Your task to perform on an android device: change the clock display to digital Image 0: 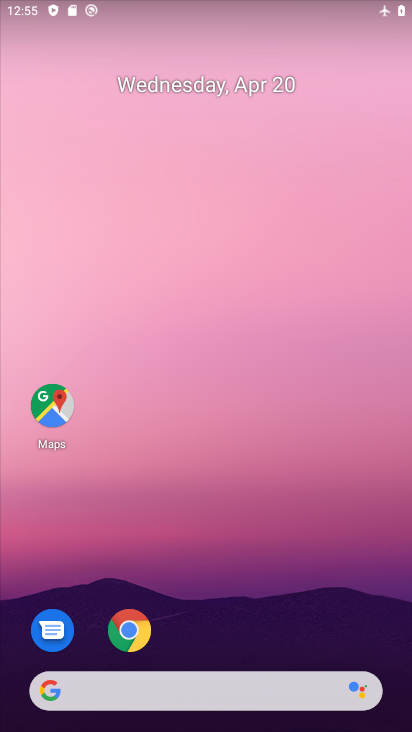
Step 0: drag from (202, 550) to (204, 294)
Your task to perform on an android device: change the clock display to digital Image 1: 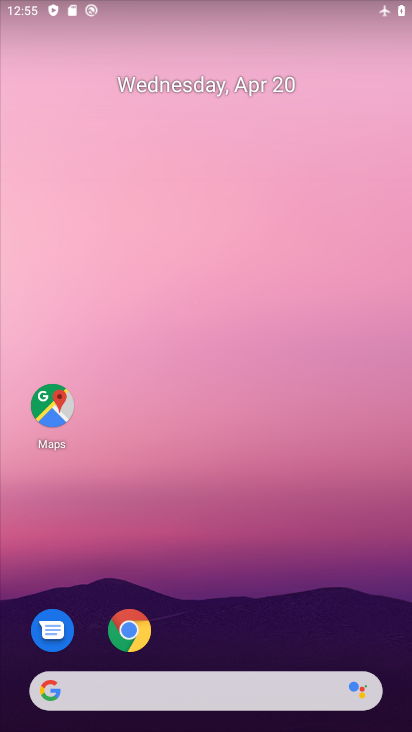
Step 1: drag from (258, 643) to (163, 121)
Your task to perform on an android device: change the clock display to digital Image 2: 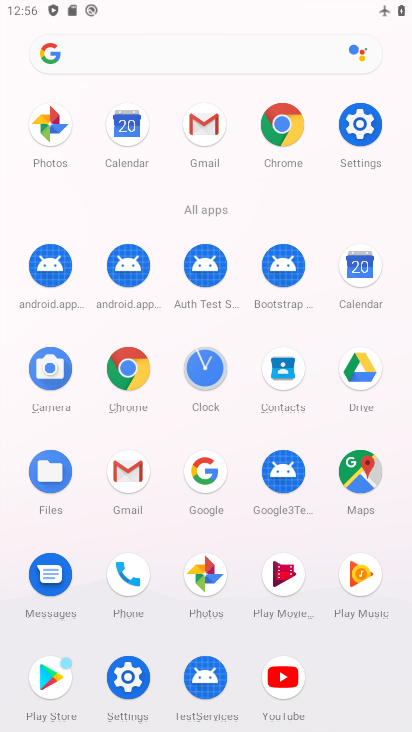
Step 2: click (216, 368)
Your task to perform on an android device: change the clock display to digital Image 3: 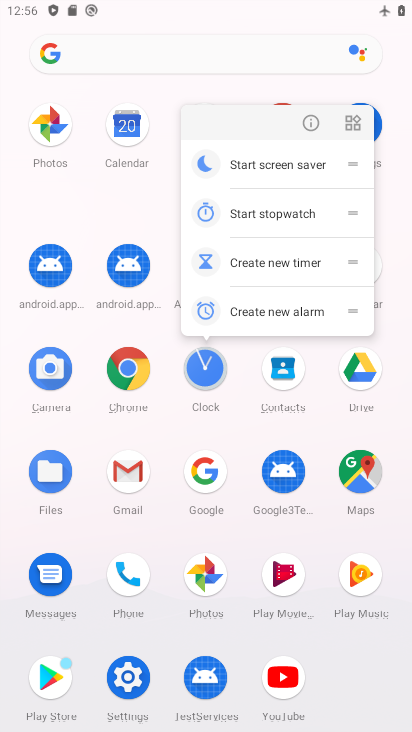
Step 3: click (219, 369)
Your task to perform on an android device: change the clock display to digital Image 4: 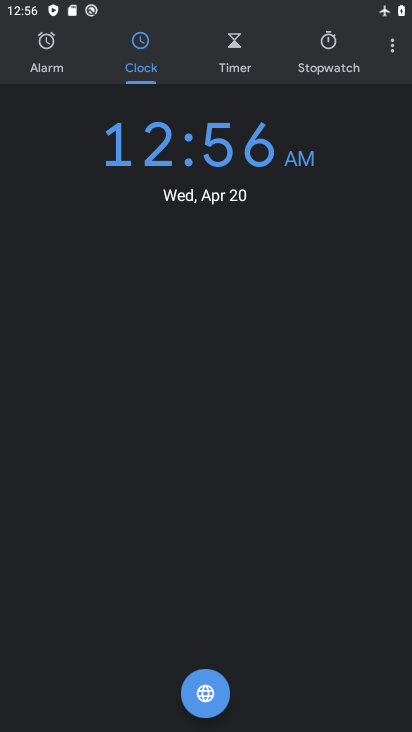
Step 4: click (403, 39)
Your task to perform on an android device: change the clock display to digital Image 5: 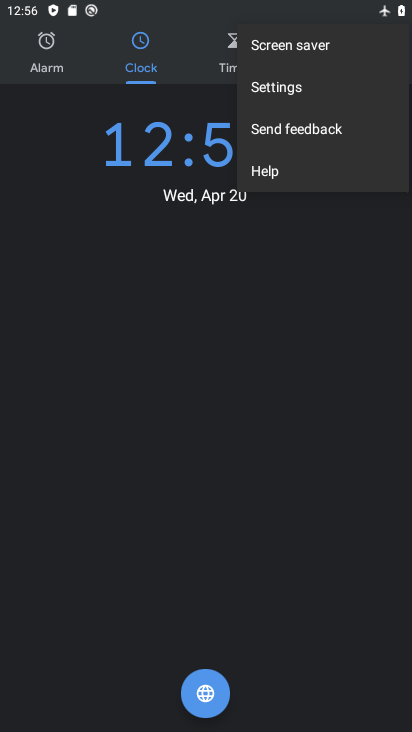
Step 5: click (292, 88)
Your task to perform on an android device: change the clock display to digital Image 6: 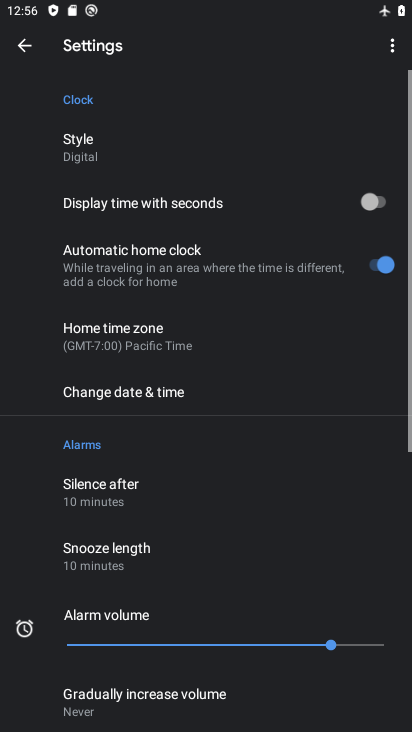
Step 6: click (93, 154)
Your task to perform on an android device: change the clock display to digital Image 7: 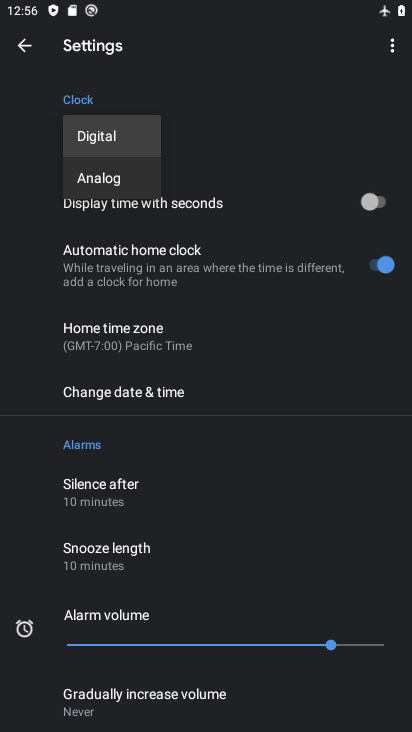
Step 7: task complete